Your task to perform on an android device: Open Chrome and go to settings Image 0: 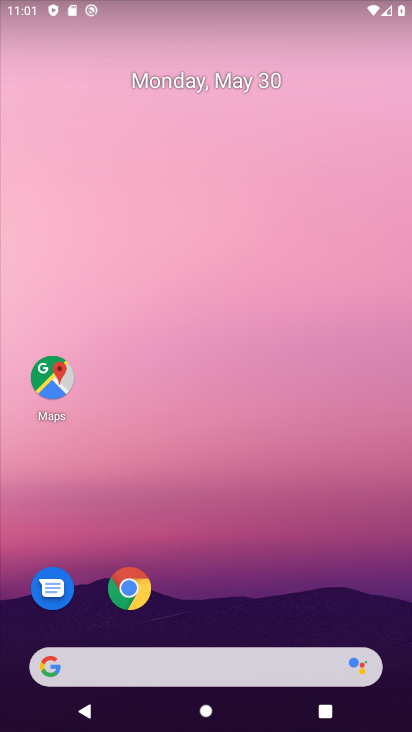
Step 0: click (124, 581)
Your task to perform on an android device: Open Chrome and go to settings Image 1: 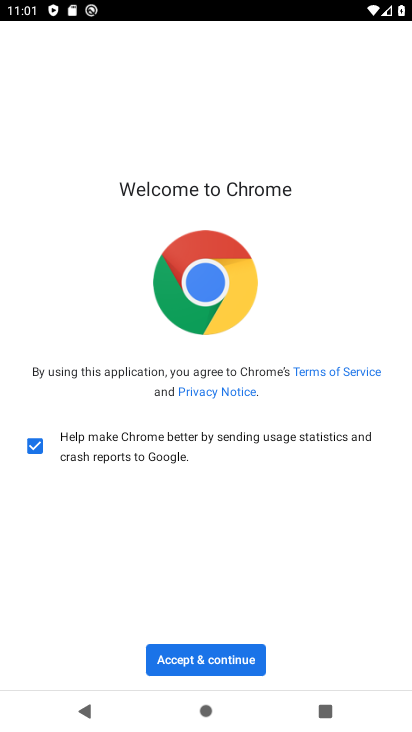
Step 1: click (198, 657)
Your task to perform on an android device: Open Chrome and go to settings Image 2: 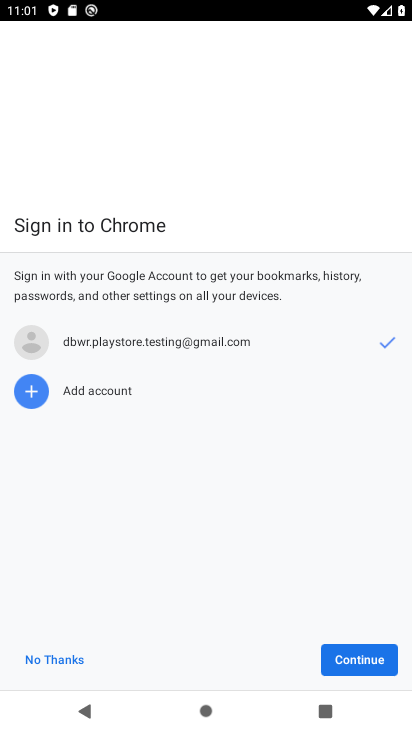
Step 2: click (364, 657)
Your task to perform on an android device: Open Chrome and go to settings Image 3: 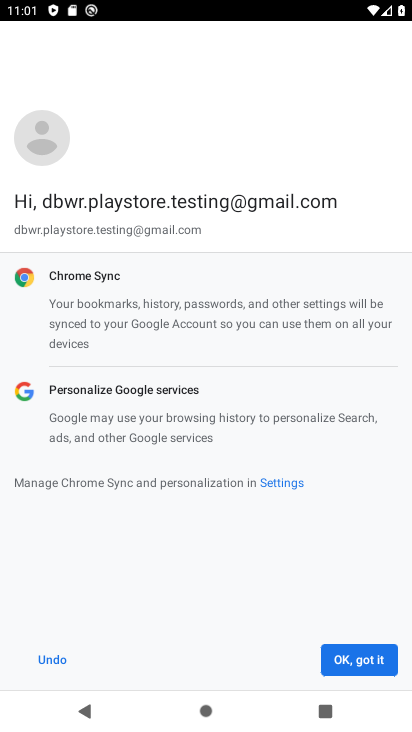
Step 3: click (354, 654)
Your task to perform on an android device: Open Chrome and go to settings Image 4: 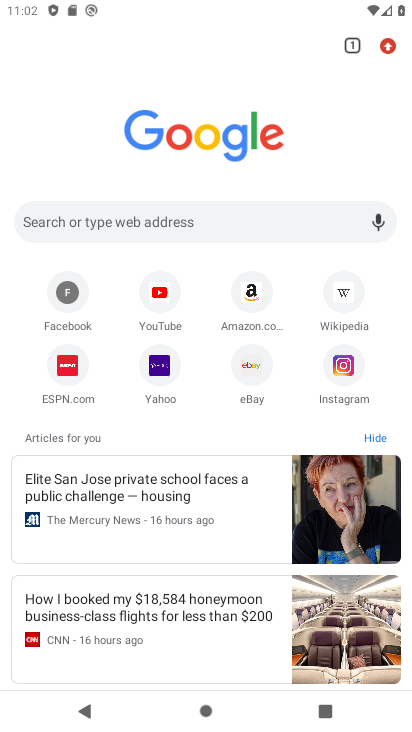
Step 4: click (391, 40)
Your task to perform on an android device: Open Chrome and go to settings Image 5: 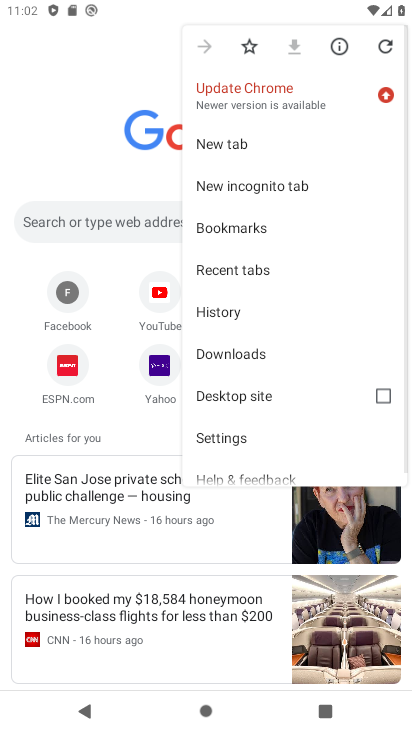
Step 5: click (257, 436)
Your task to perform on an android device: Open Chrome and go to settings Image 6: 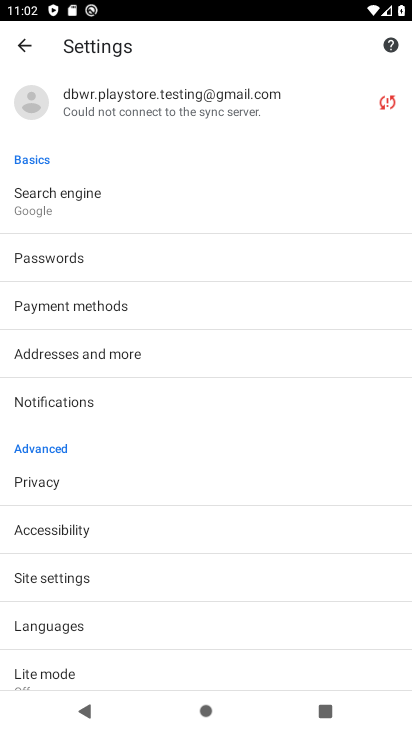
Step 6: task complete